Your task to perform on an android device: Search for Italian restaurants on Maps Image 0: 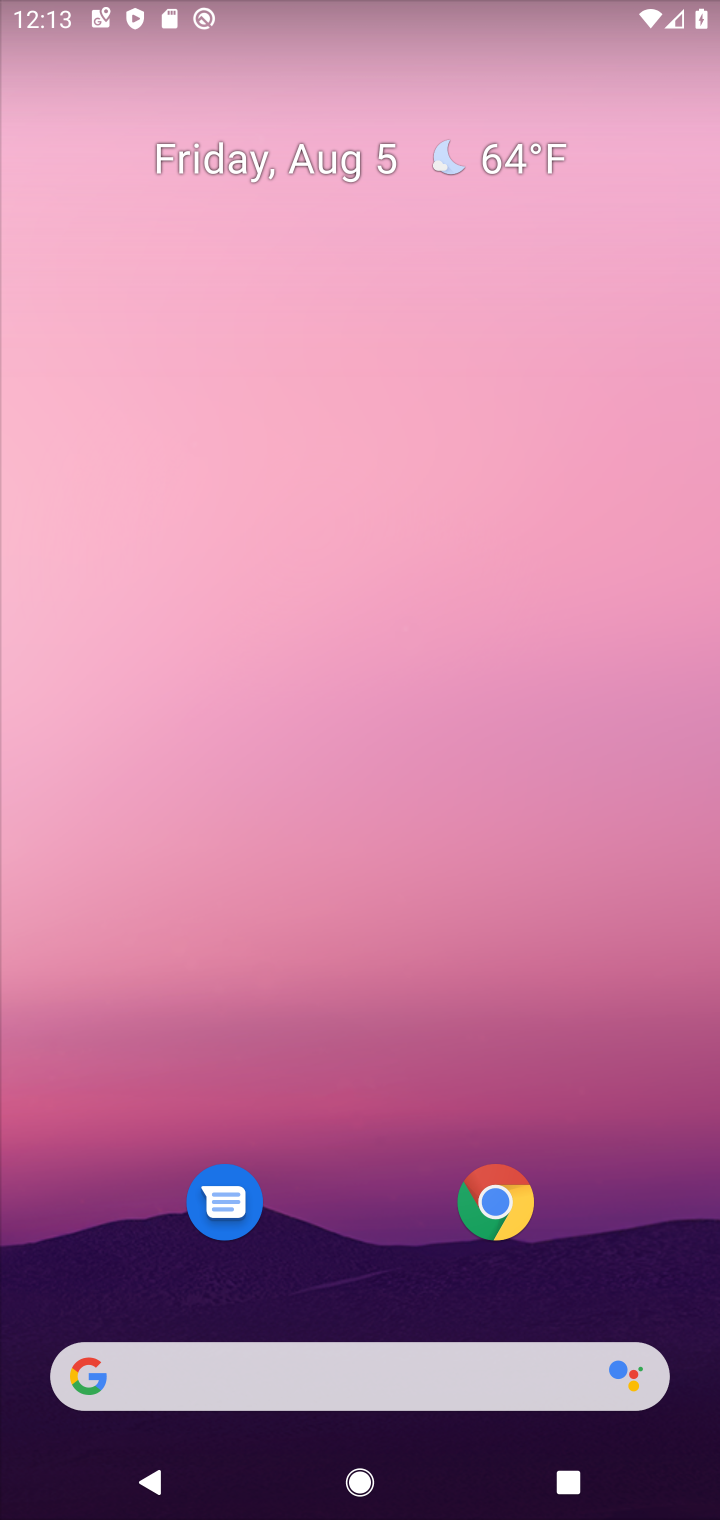
Step 0: drag from (331, 1256) to (362, 372)
Your task to perform on an android device: Search for Italian restaurants on Maps Image 1: 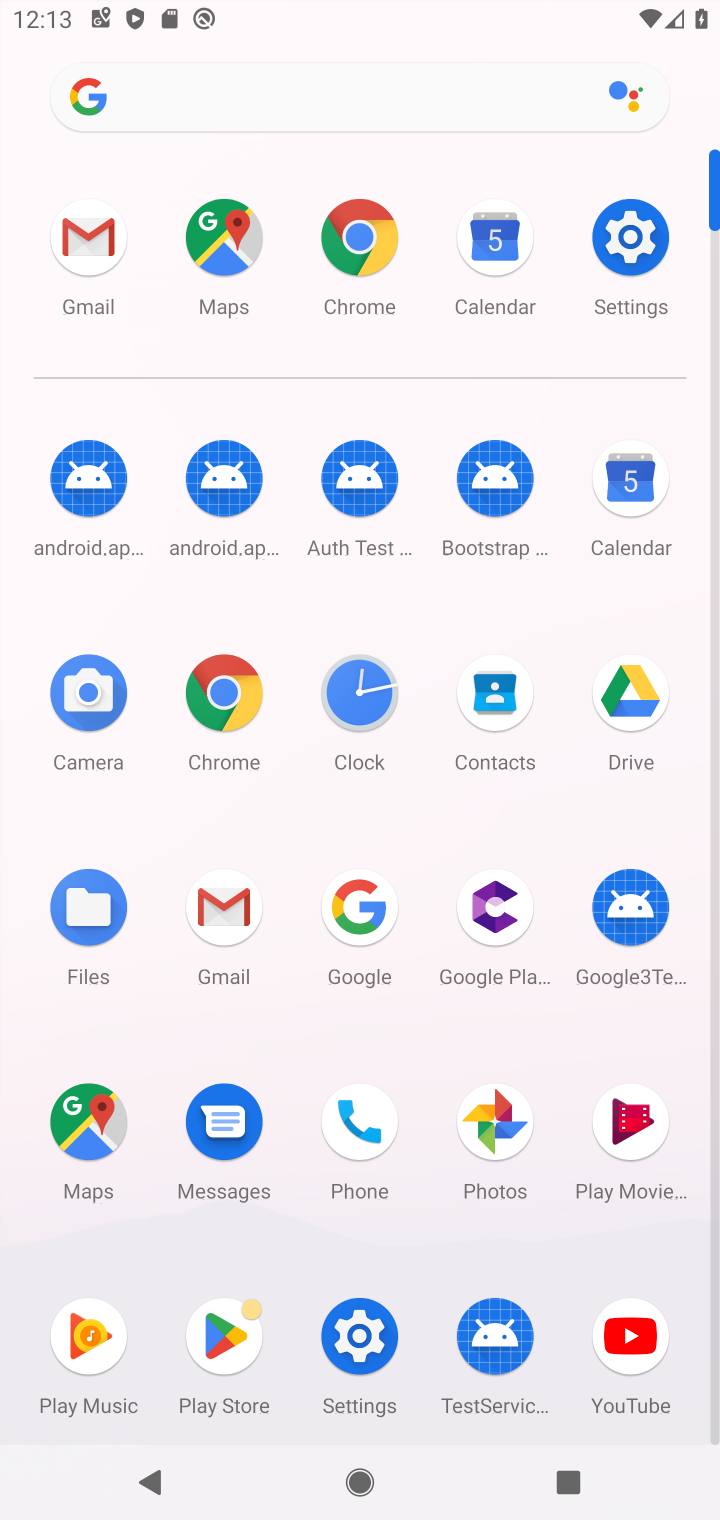
Step 1: click (191, 251)
Your task to perform on an android device: Search for Italian restaurants on Maps Image 2: 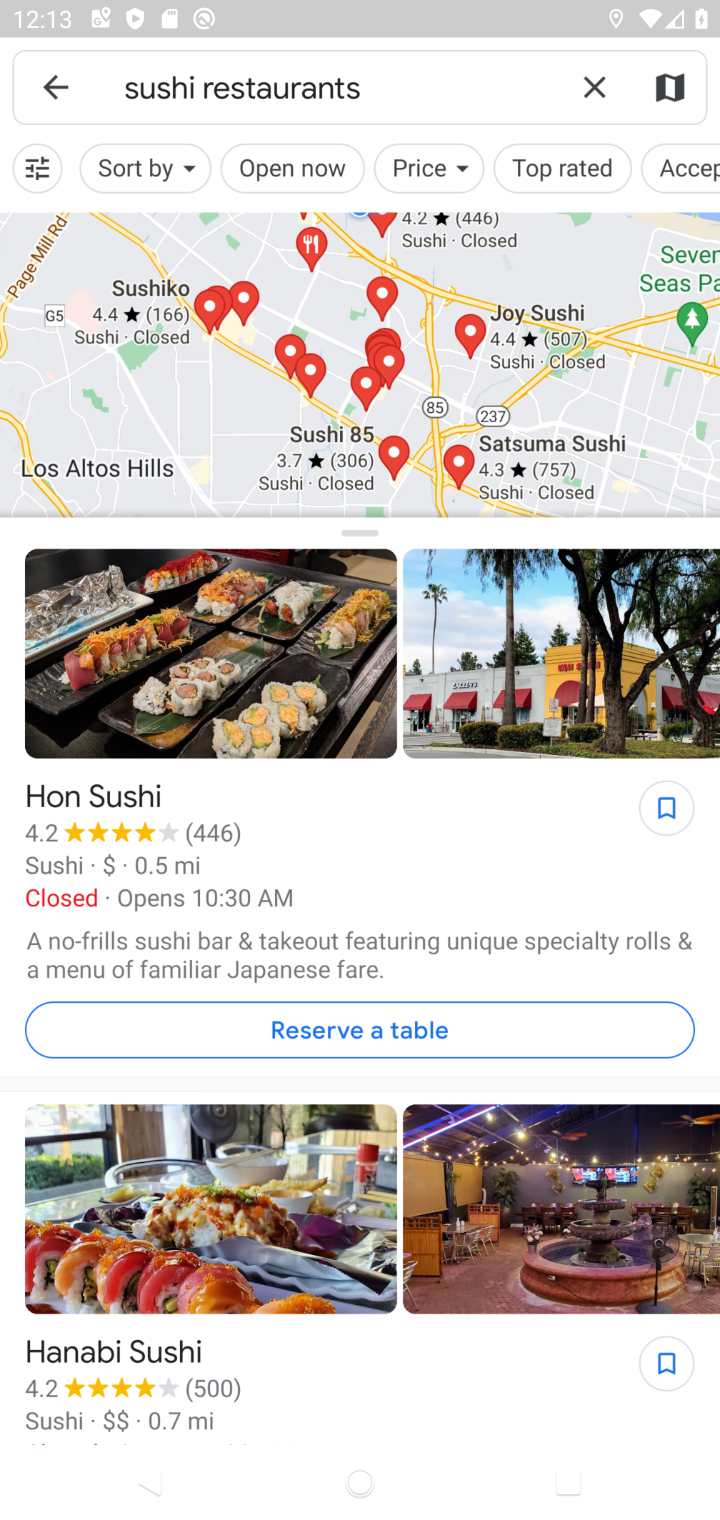
Step 2: click (606, 83)
Your task to perform on an android device: Search for Italian restaurants on Maps Image 3: 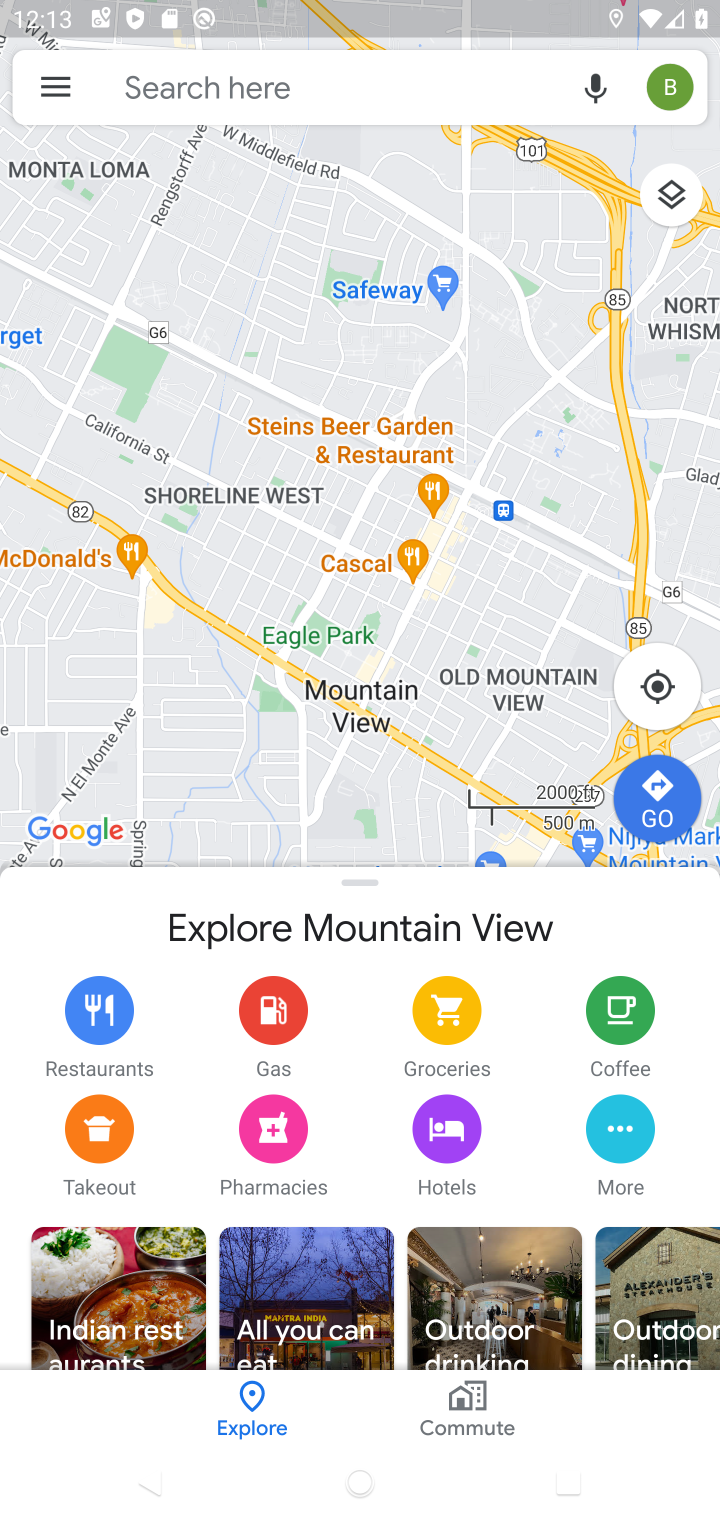
Step 3: click (444, 89)
Your task to perform on an android device: Search for Italian restaurants on Maps Image 4: 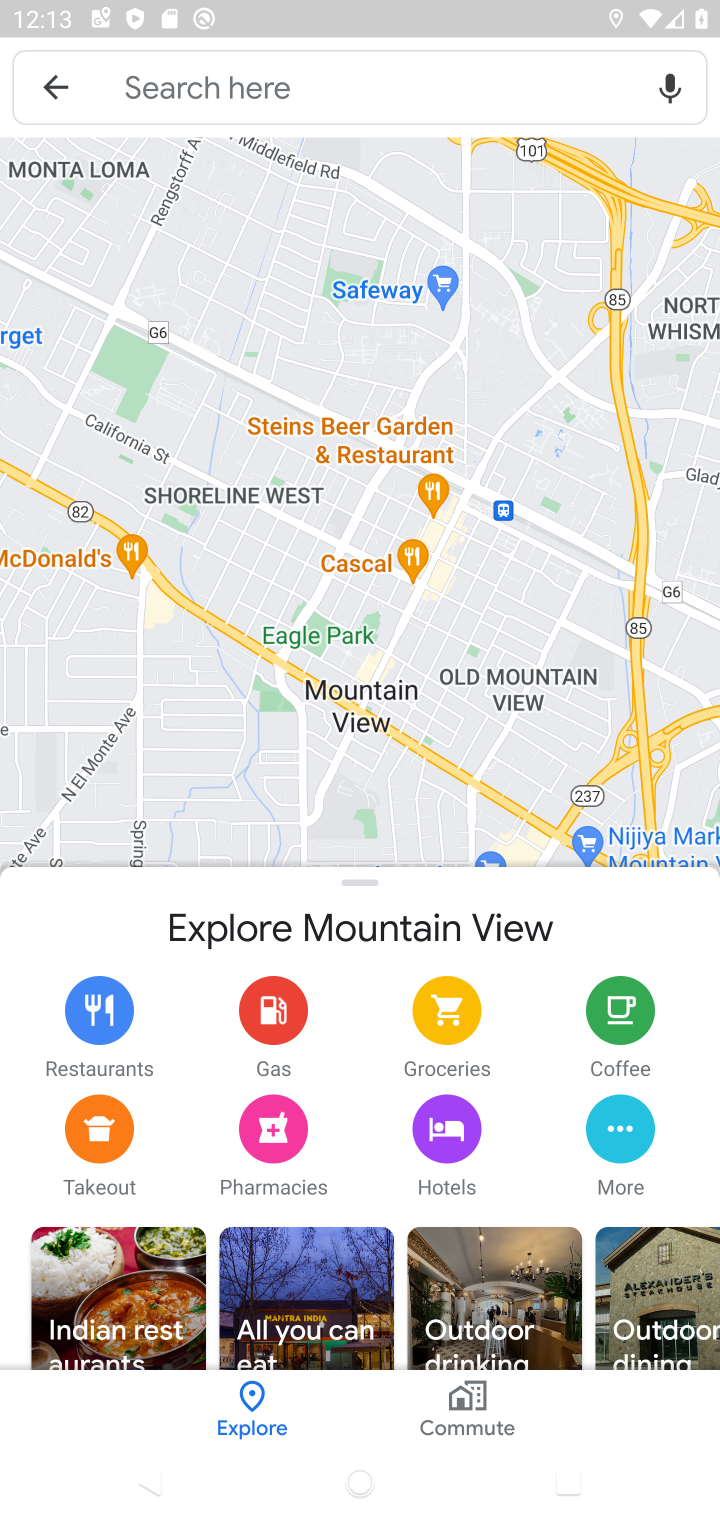
Step 4: click (444, 89)
Your task to perform on an android device: Search for Italian restaurants on Maps Image 5: 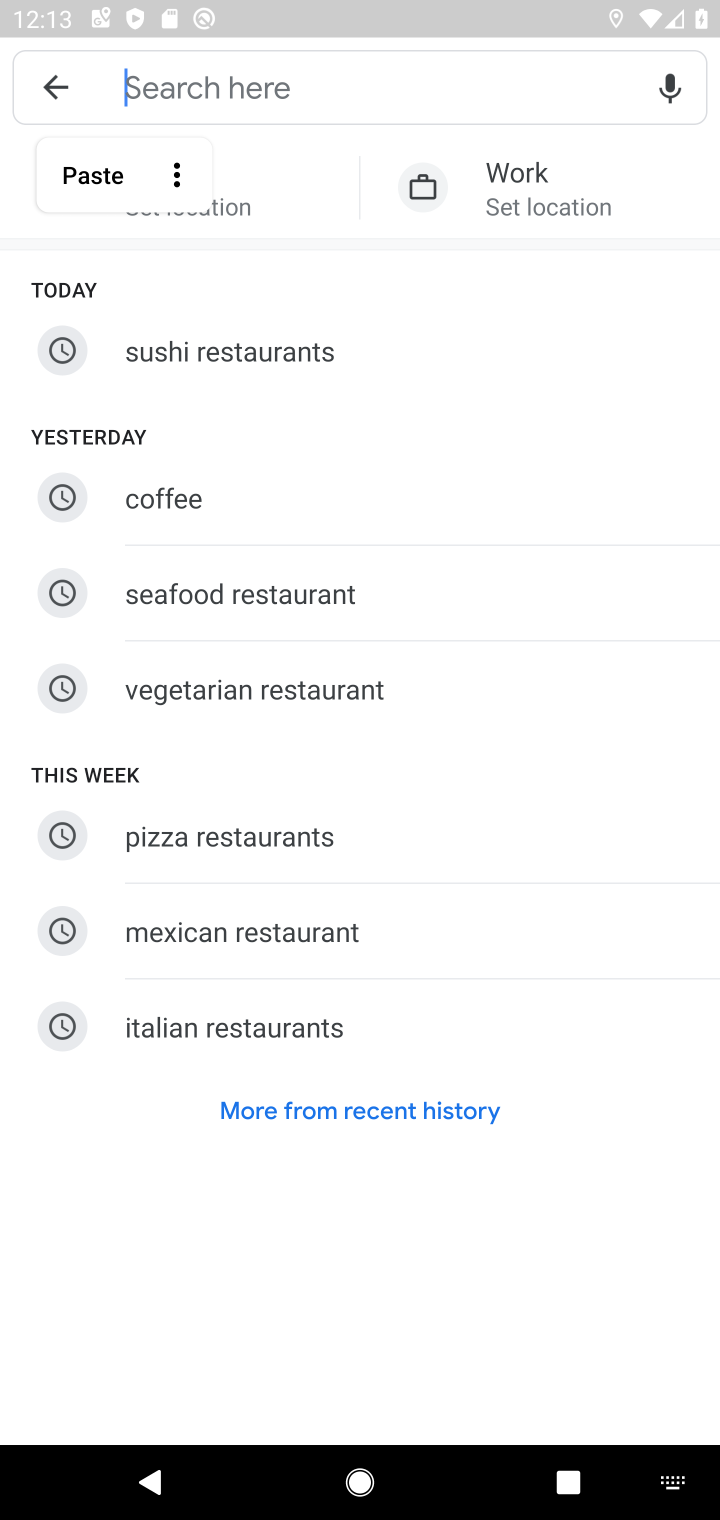
Step 5: click (190, 1004)
Your task to perform on an android device: Search for Italian restaurants on Maps Image 6: 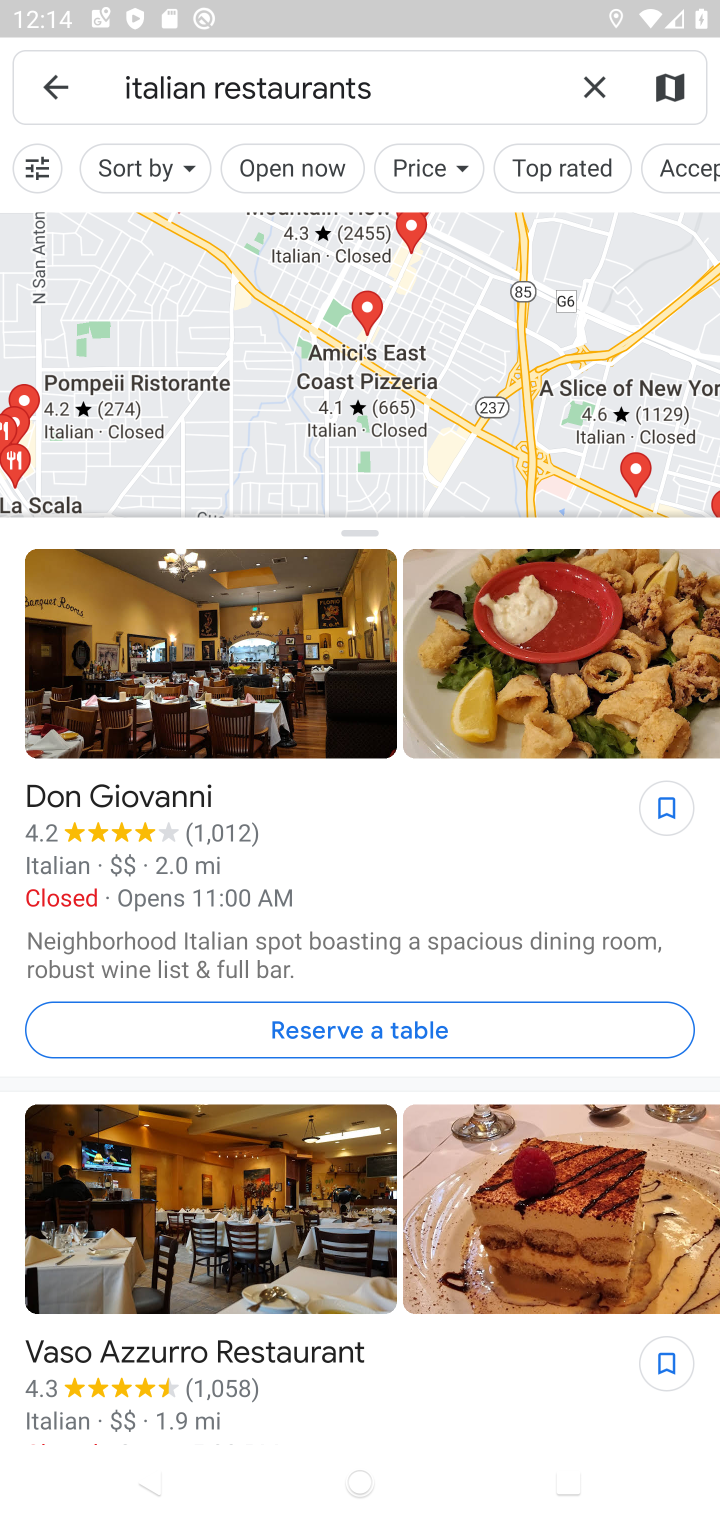
Step 6: task complete